Your task to perform on an android device: turn on location history Image 0: 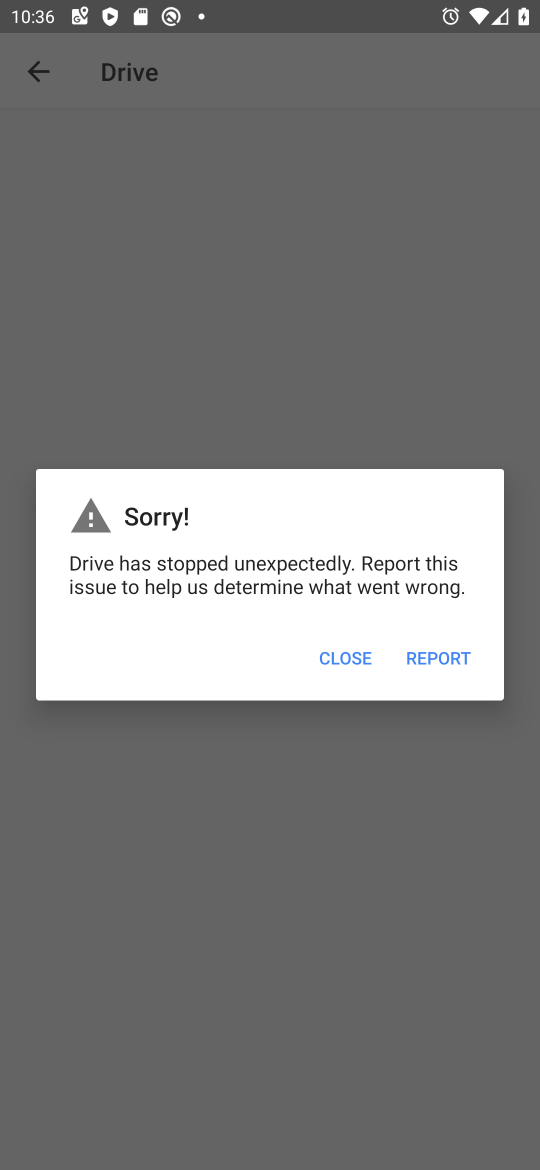
Step 0: press home button
Your task to perform on an android device: turn on location history Image 1: 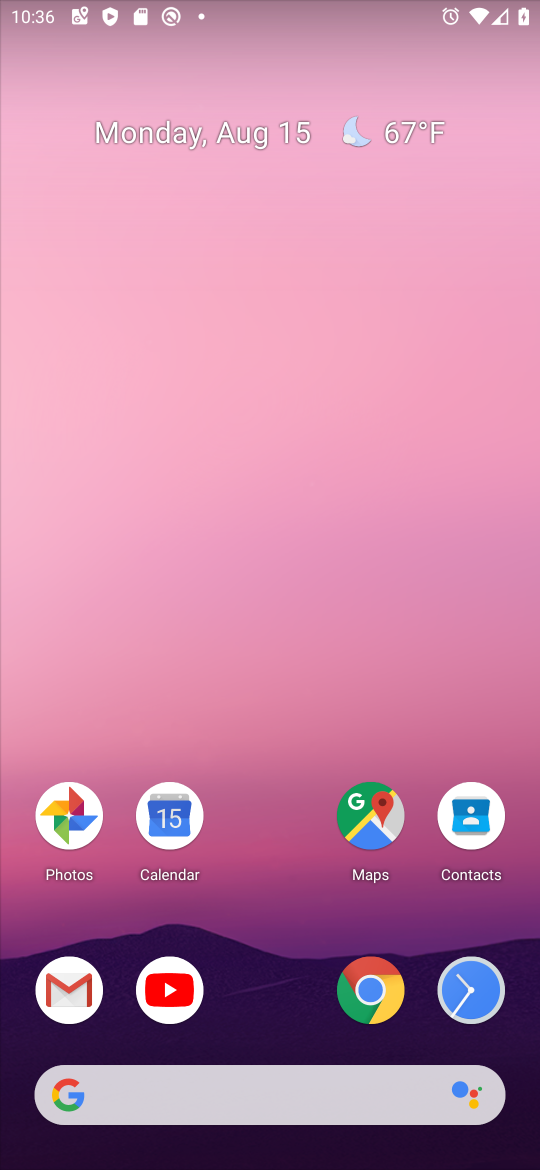
Step 1: click (368, 824)
Your task to perform on an android device: turn on location history Image 2: 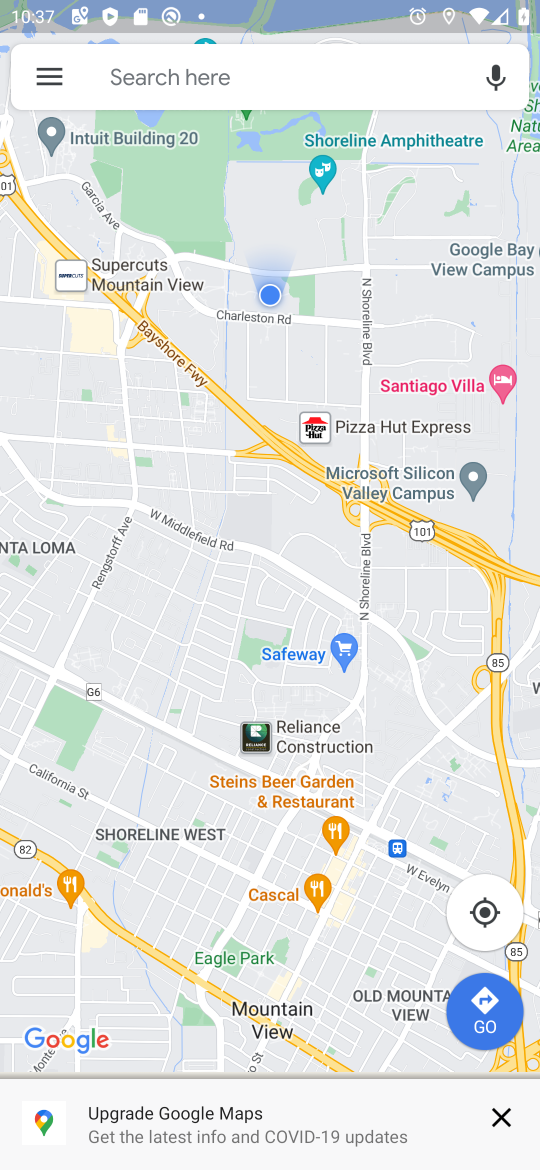
Step 2: click (45, 72)
Your task to perform on an android device: turn on location history Image 3: 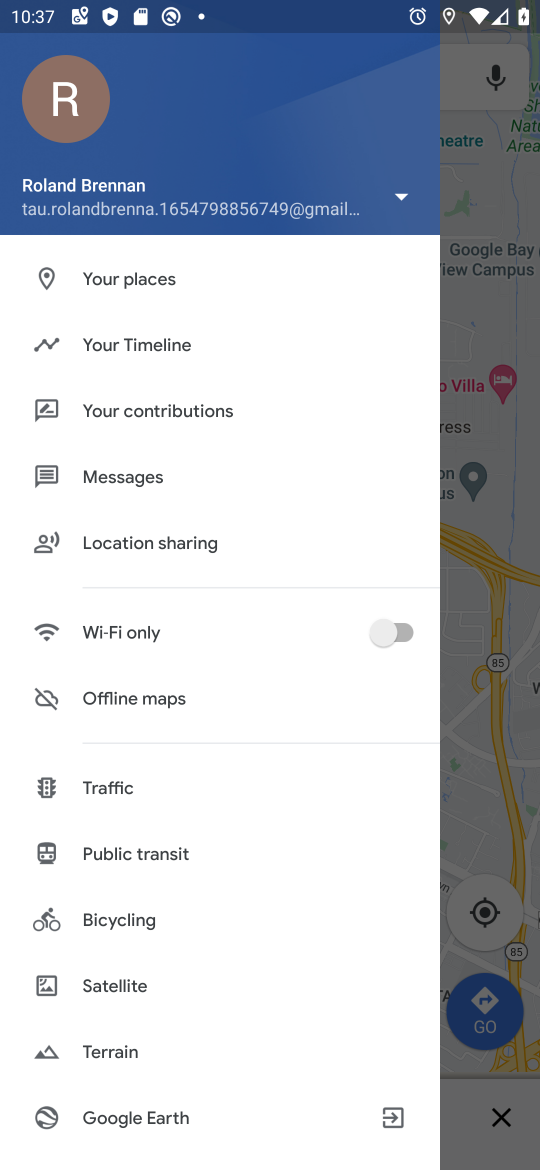
Step 3: click (163, 346)
Your task to perform on an android device: turn on location history Image 4: 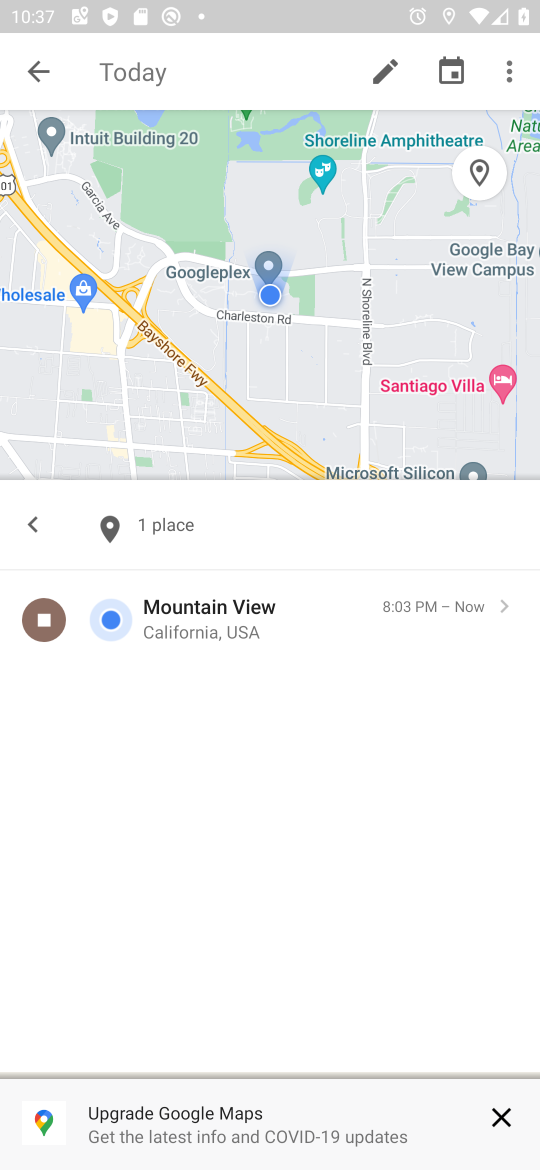
Step 4: click (509, 65)
Your task to perform on an android device: turn on location history Image 5: 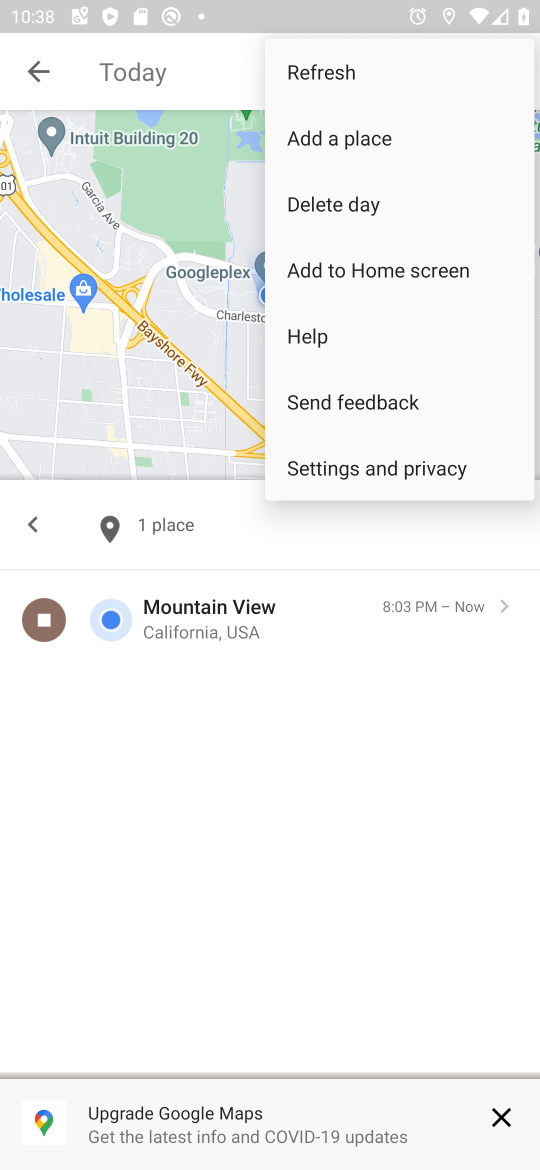
Step 5: click (343, 462)
Your task to perform on an android device: turn on location history Image 6: 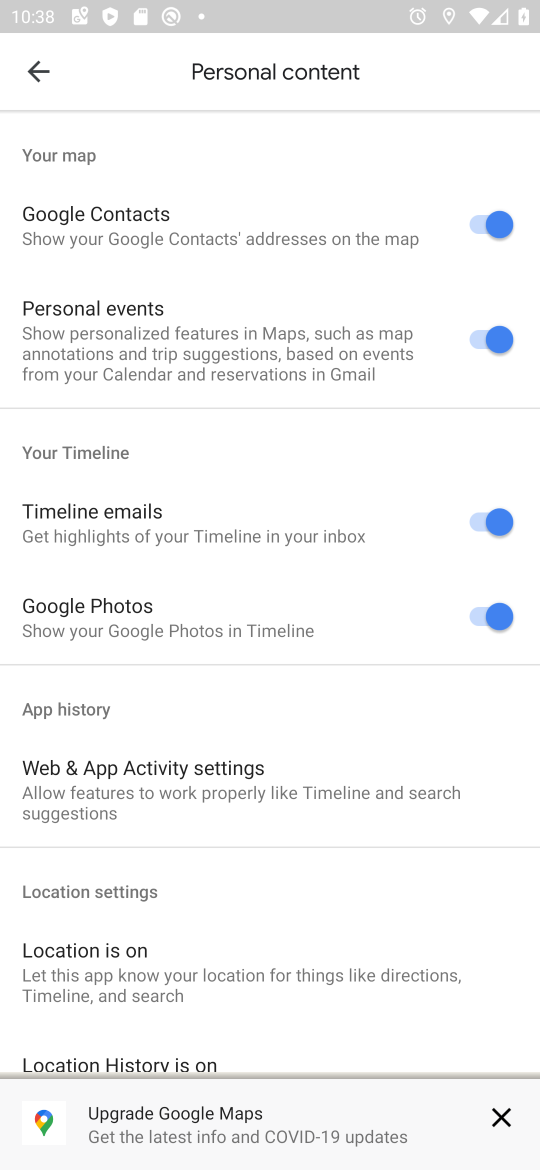
Step 6: drag from (257, 864) to (264, 600)
Your task to perform on an android device: turn on location history Image 7: 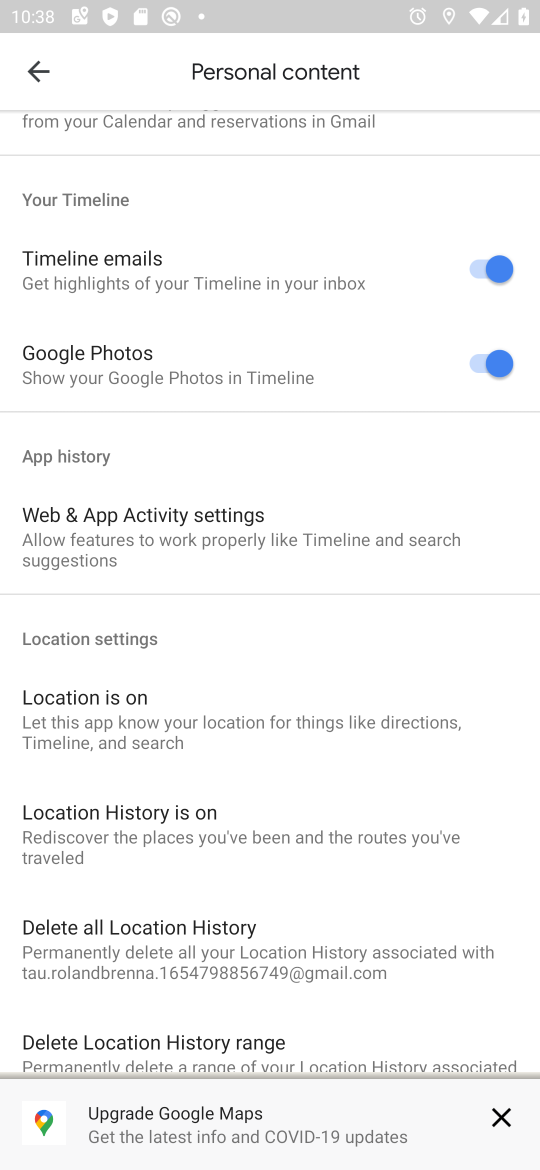
Step 7: click (146, 805)
Your task to perform on an android device: turn on location history Image 8: 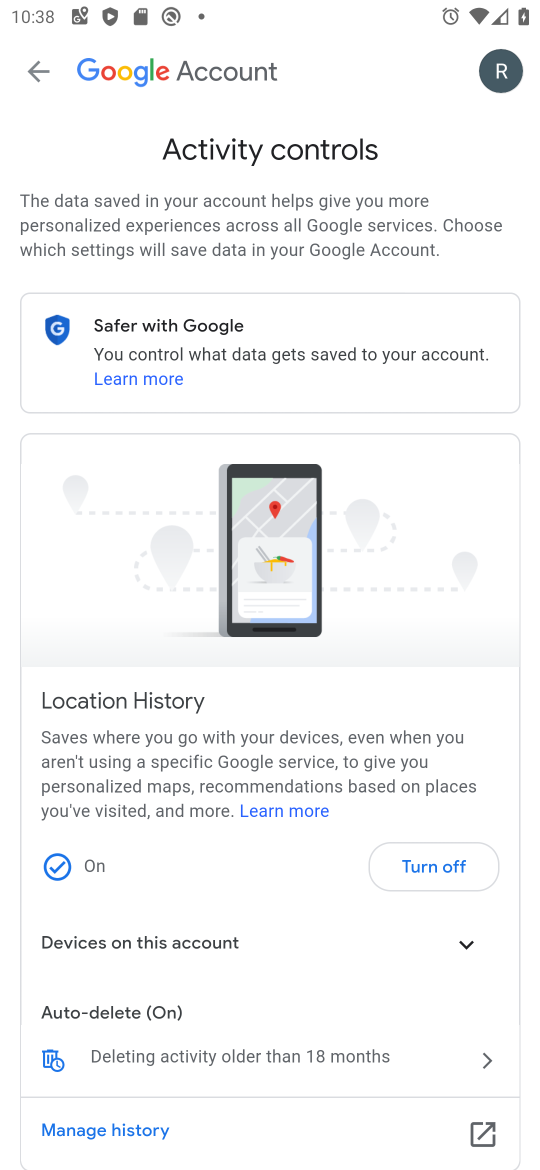
Step 8: task complete